Your task to perform on an android device: Go to display settings Image 0: 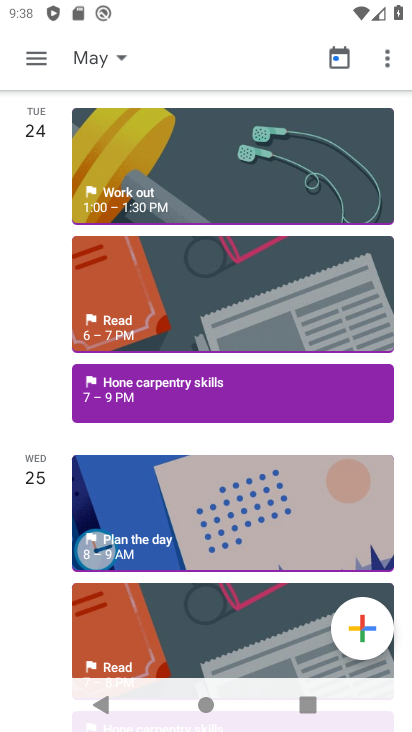
Step 0: press home button
Your task to perform on an android device: Go to display settings Image 1: 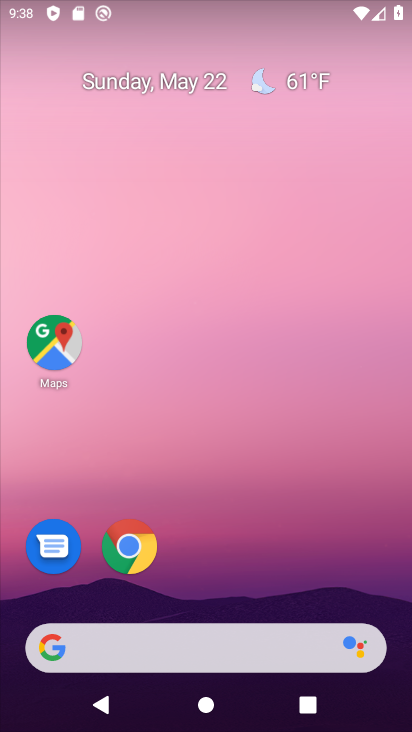
Step 1: drag from (190, 645) to (320, 41)
Your task to perform on an android device: Go to display settings Image 2: 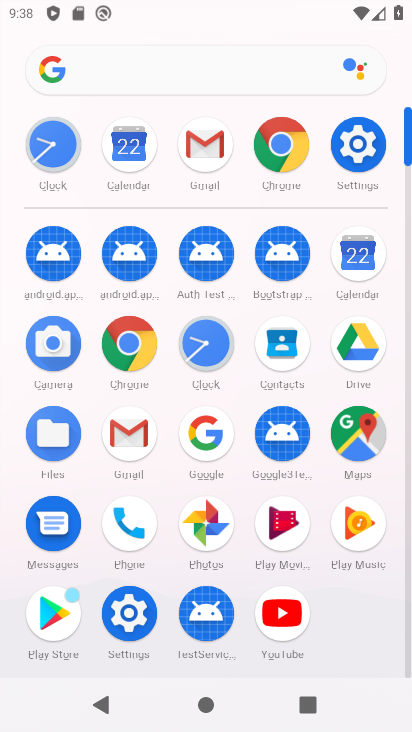
Step 2: click (349, 157)
Your task to perform on an android device: Go to display settings Image 3: 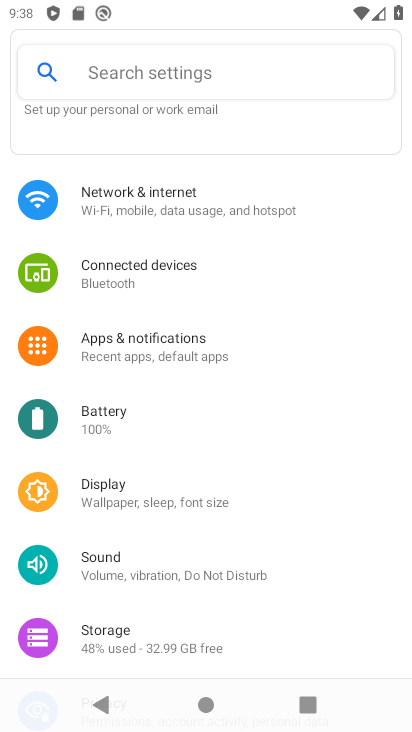
Step 3: click (155, 493)
Your task to perform on an android device: Go to display settings Image 4: 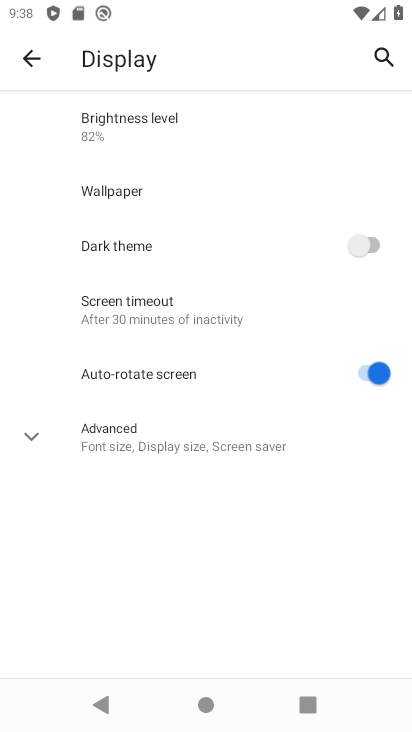
Step 4: task complete